Your task to perform on an android device: open device folders in google photos Image 0: 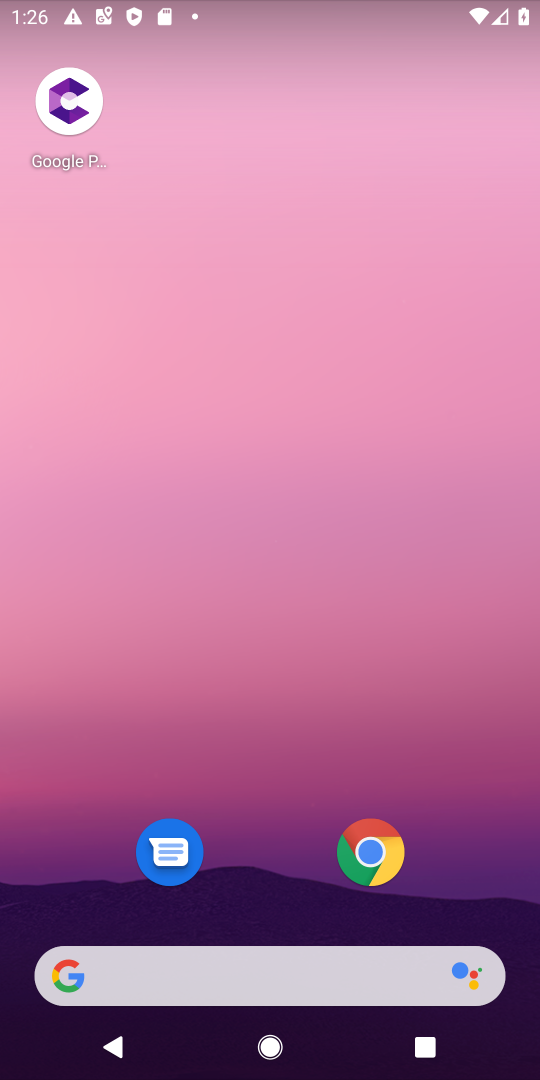
Step 0: drag from (492, 910) to (485, 393)
Your task to perform on an android device: open device folders in google photos Image 1: 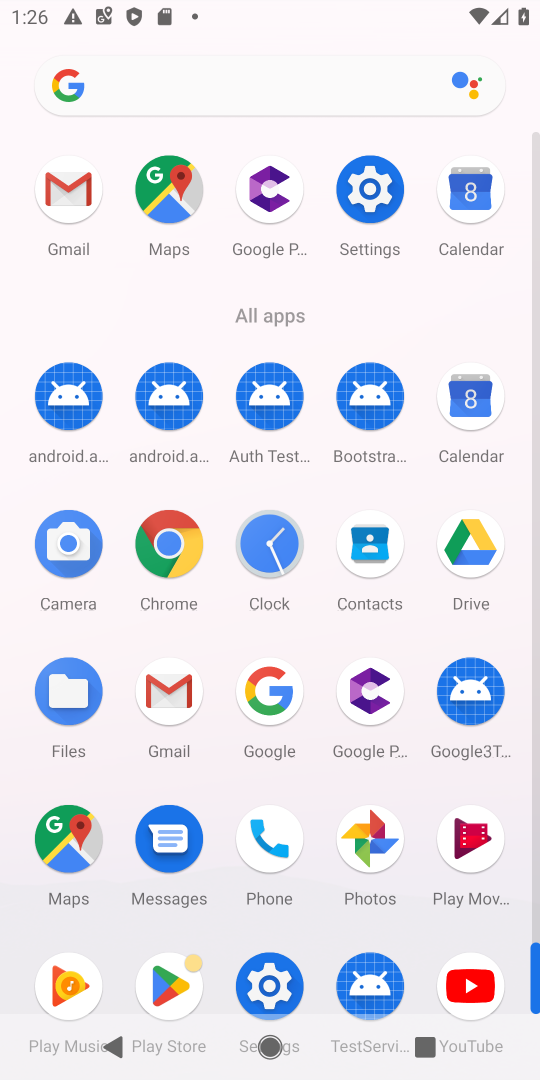
Step 1: click (402, 851)
Your task to perform on an android device: open device folders in google photos Image 2: 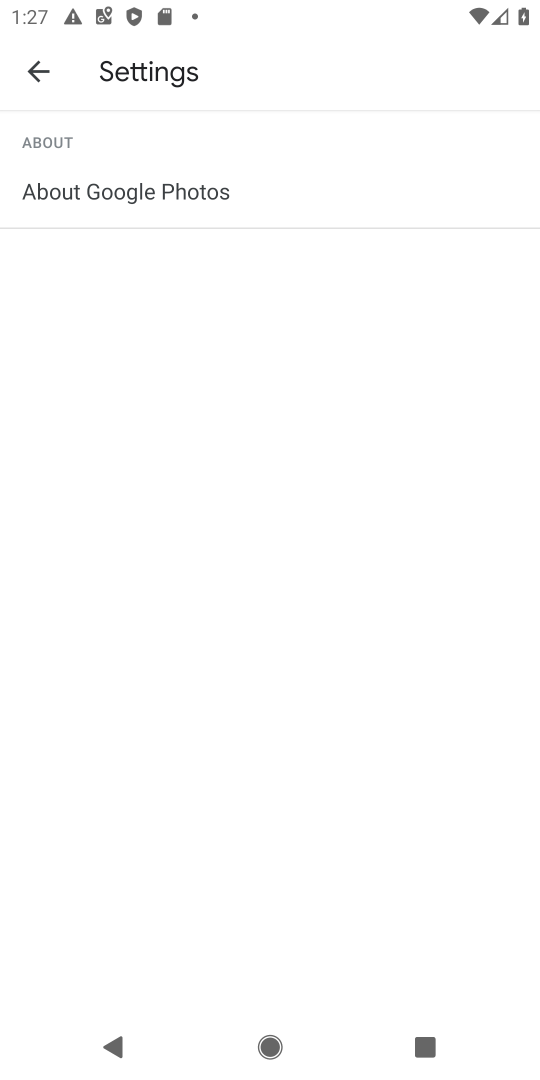
Step 2: click (45, 74)
Your task to perform on an android device: open device folders in google photos Image 3: 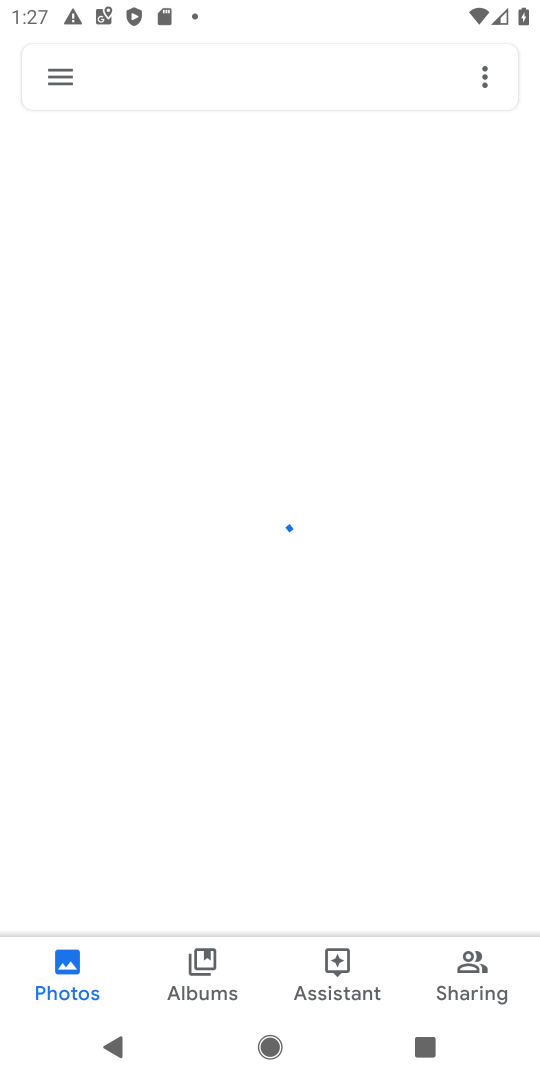
Step 3: click (78, 79)
Your task to perform on an android device: open device folders in google photos Image 4: 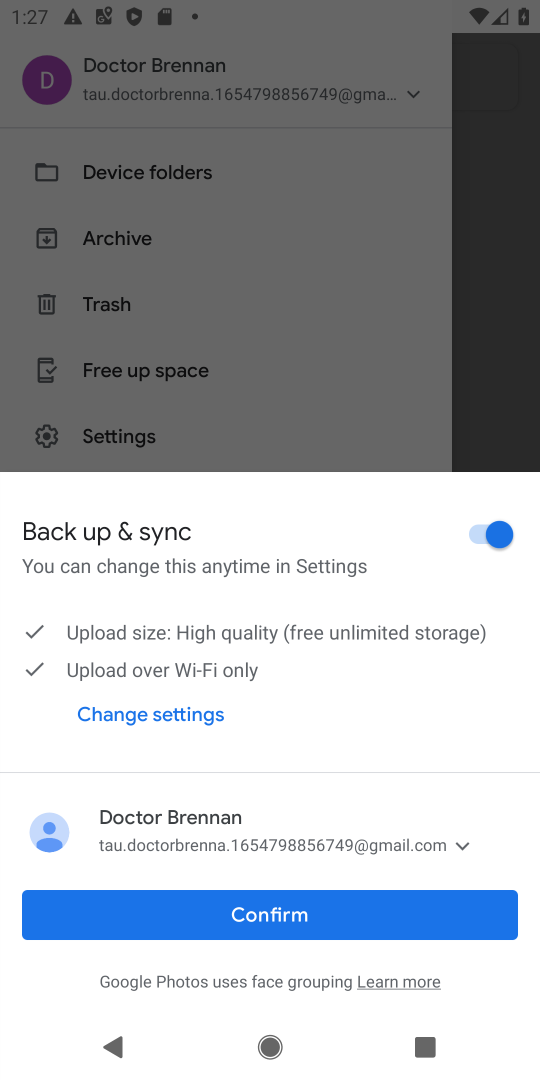
Step 4: click (443, 923)
Your task to perform on an android device: open device folders in google photos Image 5: 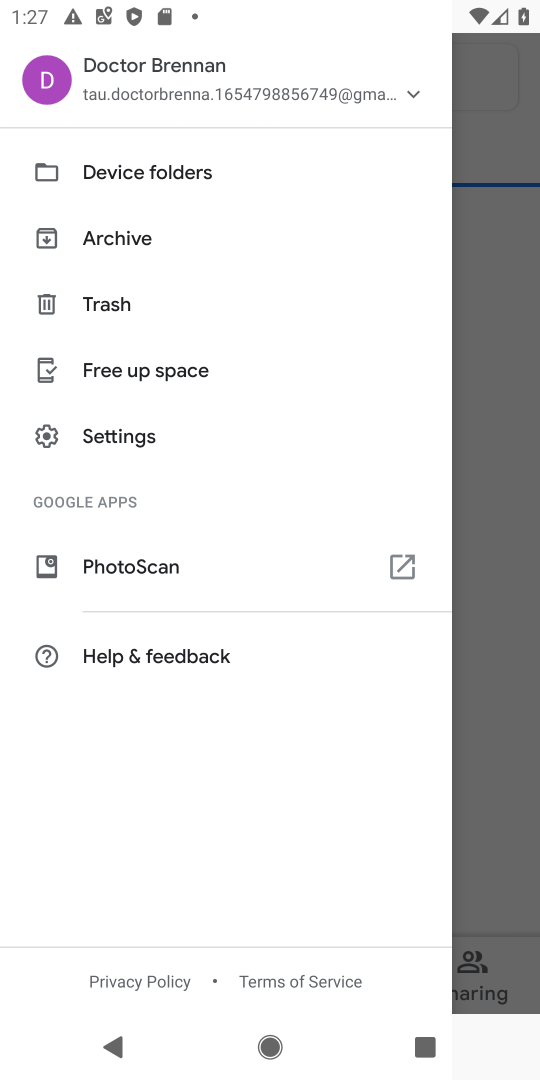
Step 5: click (291, 186)
Your task to perform on an android device: open device folders in google photos Image 6: 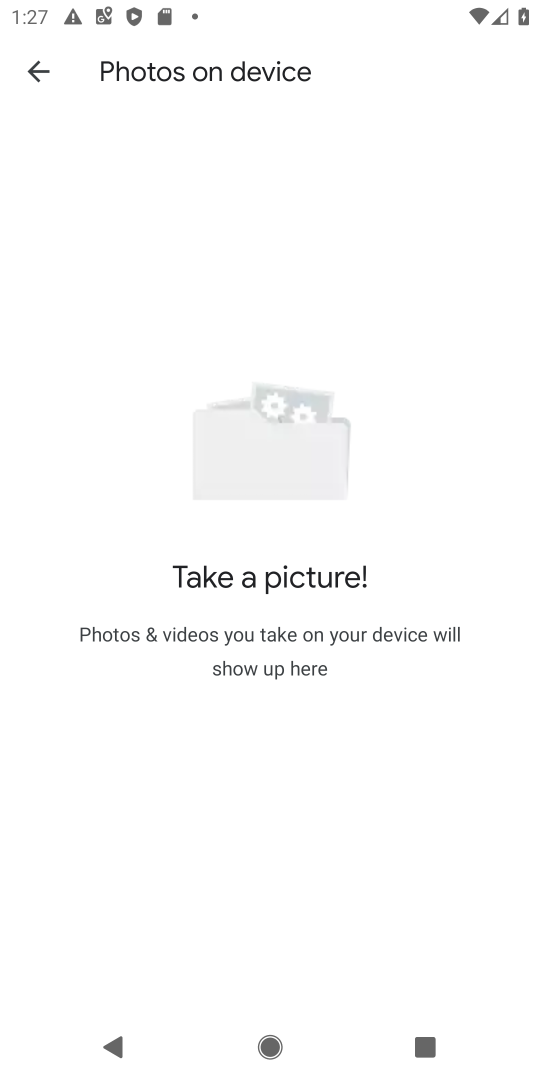
Step 6: task complete